Your task to perform on an android device: open device folders in google photos Image 0: 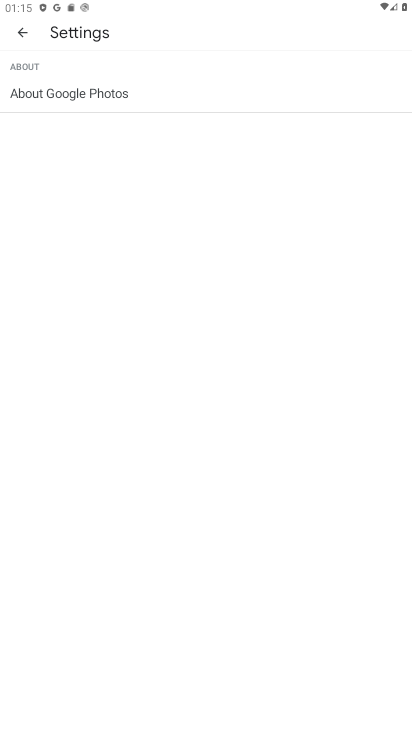
Step 0: press home button
Your task to perform on an android device: open device folders in google photos Image 1: 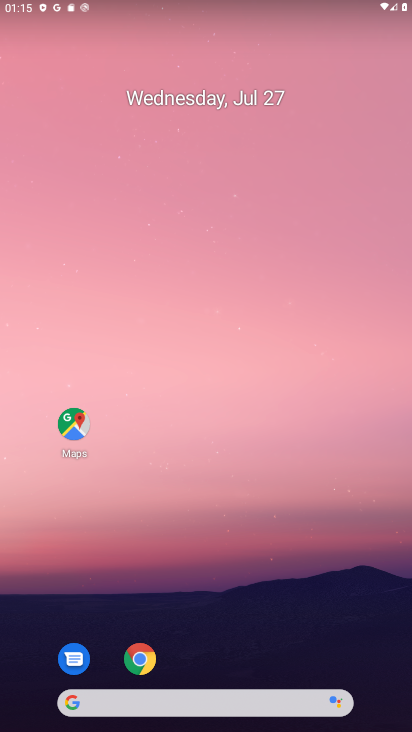
Step 1: drag from (322, 593) to (213, 168)
Your task to perform on an android device: open device folders in google photos Image 2: 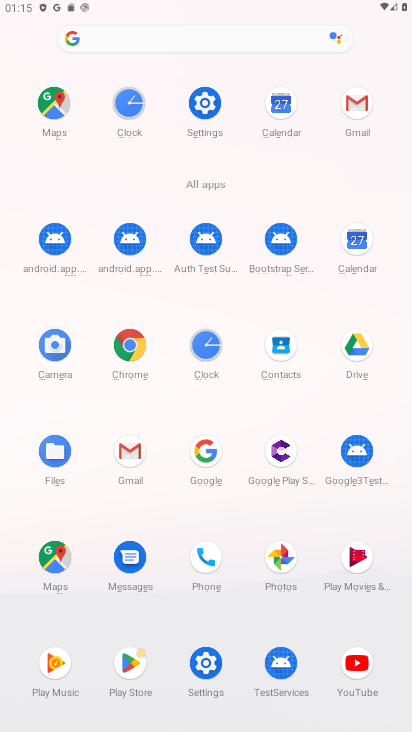
Step 2: click (282, 553)
Your task to perform on an android device: open device folders in google photos Image 3: 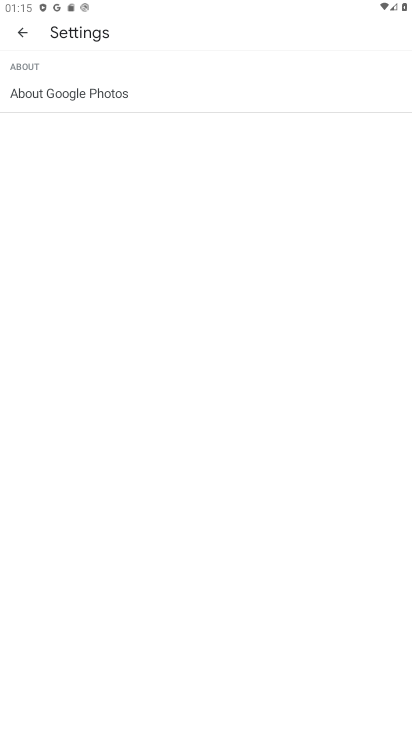
Step 3: click (15, 36)
Your task to perform on an android device: open device folders in google photos Image 4: 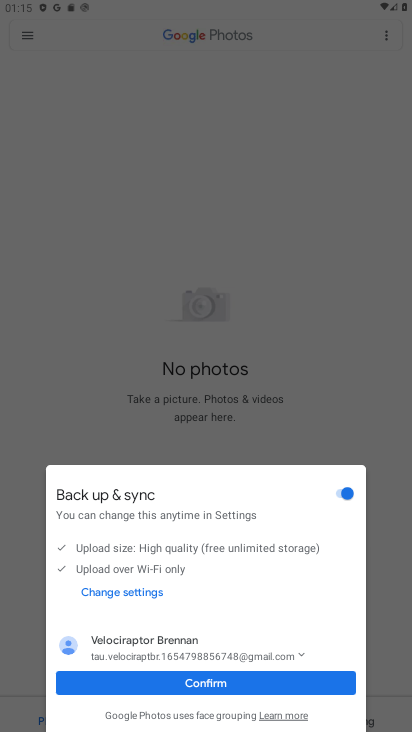
Step 4: click (350, 683)
Your task to perform on an android device: open device folders in google photos Image 5: 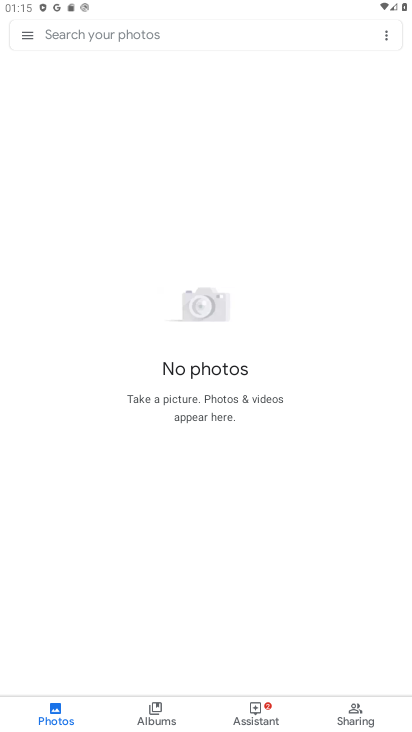
Step 5: click (21, 32)
Your task to perform on an android device: open device folders in google photos Image 6: 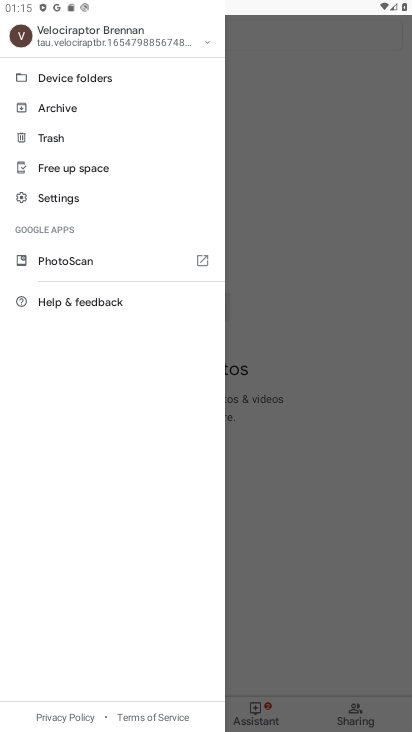
Step 6: click (65, 80)
Your task to perform on an android device: open device folders in google photos Image 7: 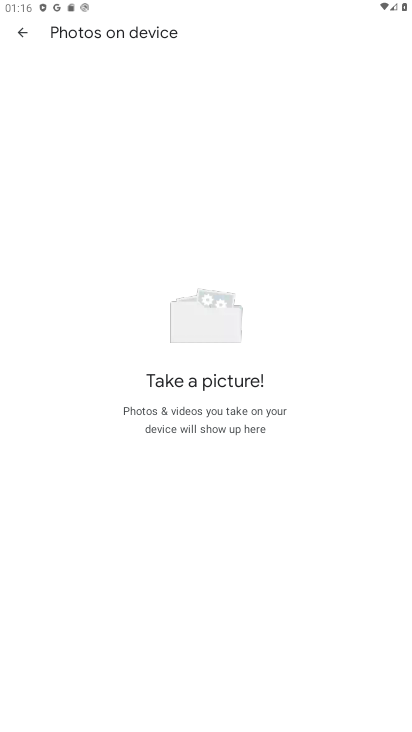
Step 7: task complete